Your task to perform on an android device: turn on javascript in the chrome app Image 0: 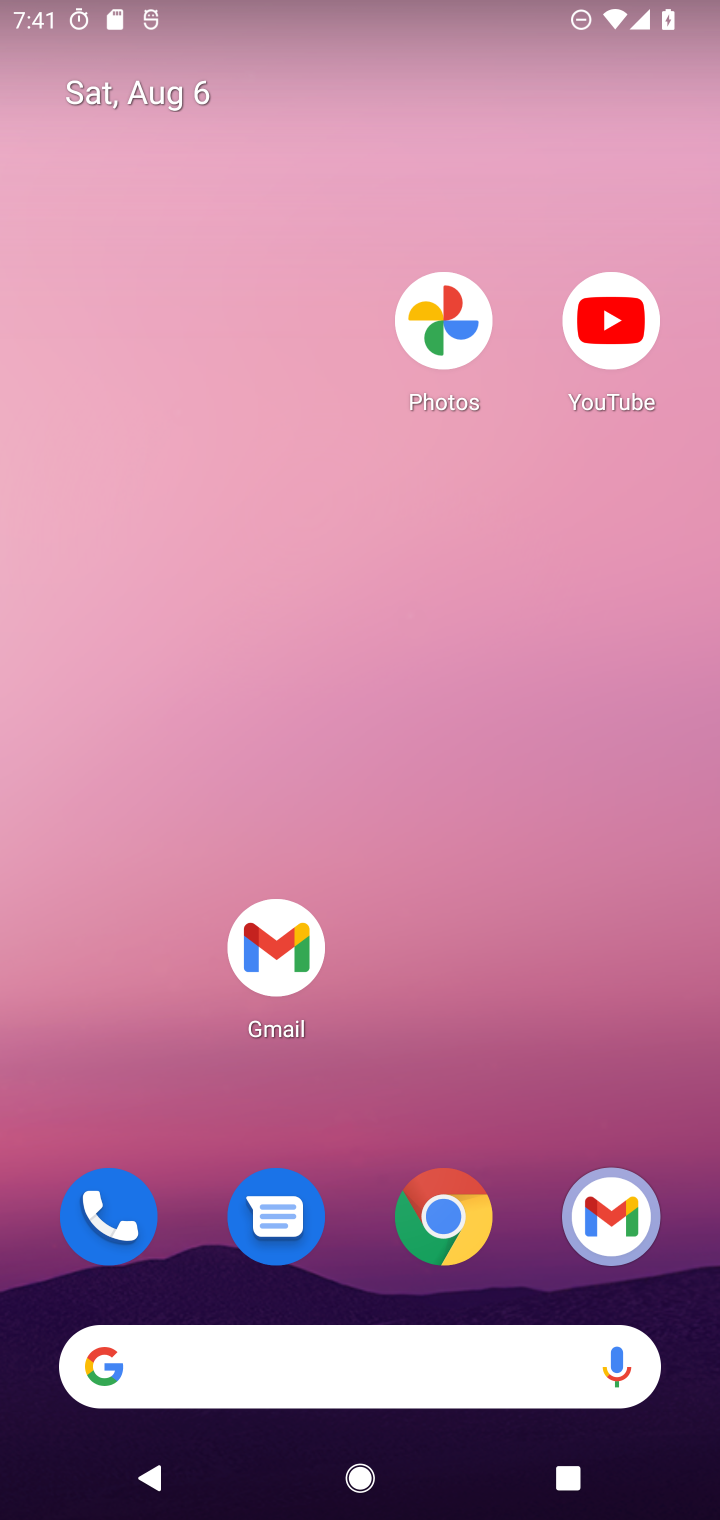
Step 0: drag from (454, 584) to (498, 38)
Your task to perform on an android device: turn on javascript in the chrome app Image 1: 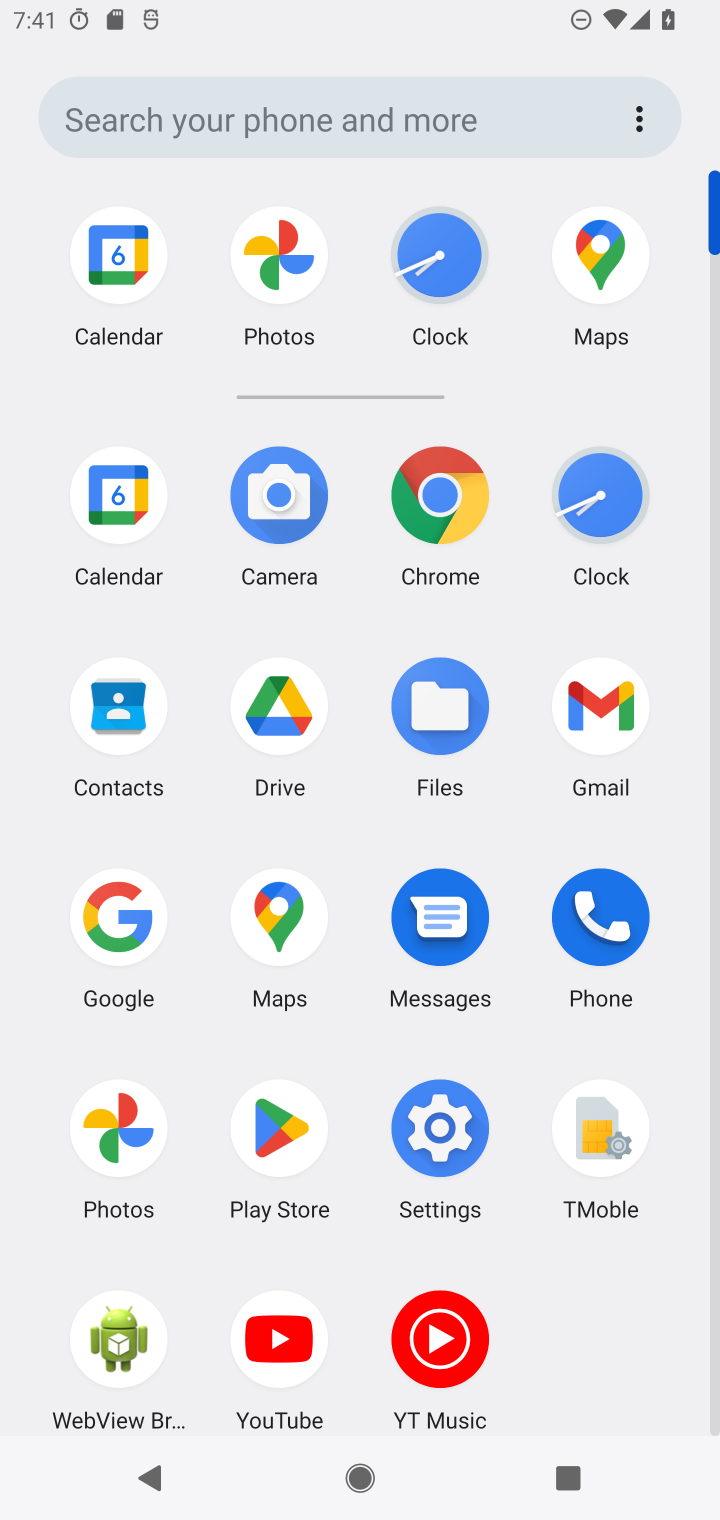
Step 1: click (443, 495)
Your task to perform on an android device: turn on javascript in the chrome app Image 2: 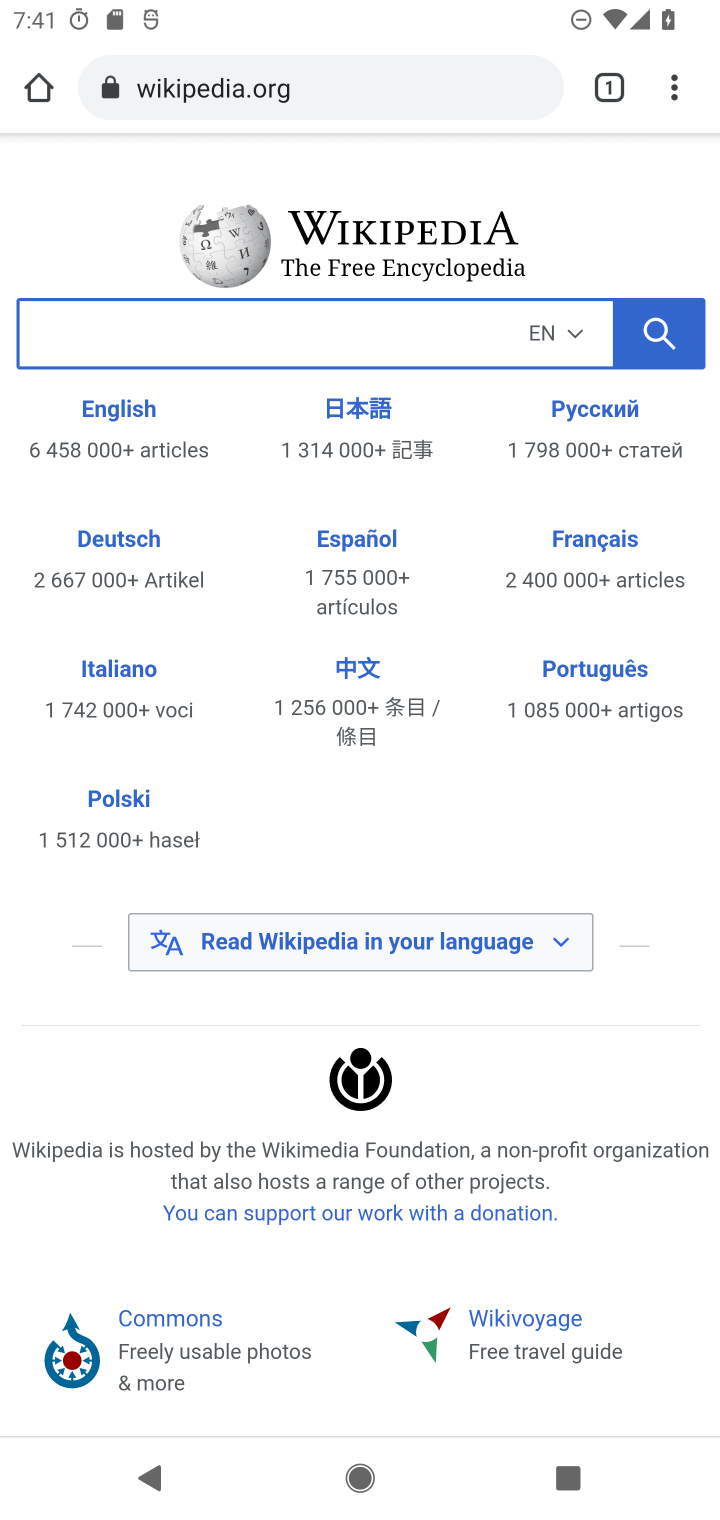
Step 2: drag from (689, 95) to (427, 1204)
Your task to perform on an android device: turn on javascript in the chrome app Image 3: 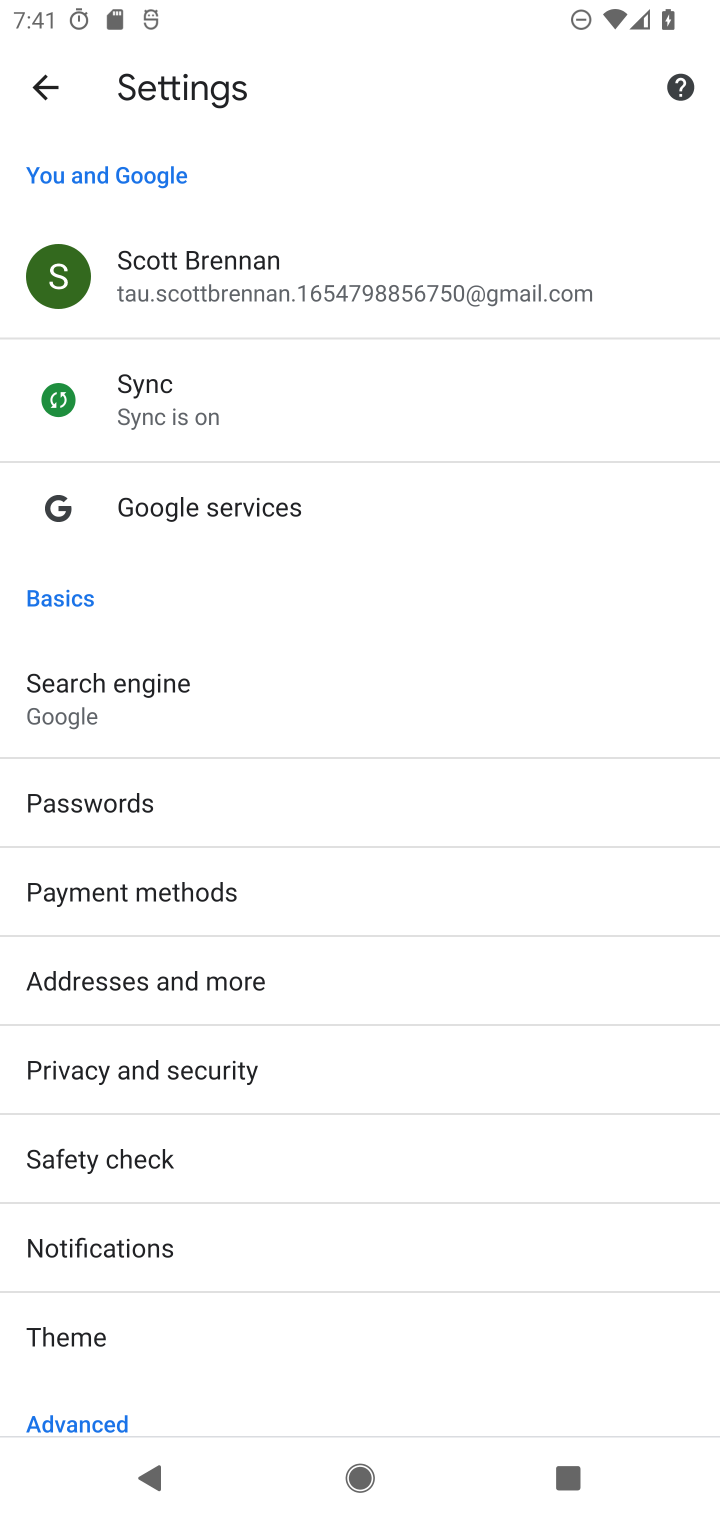
Step 3: drag from (272, 1216) to (363, 367)
Your task to perform on an android device: turn on javascript in the chrome app Image 4: 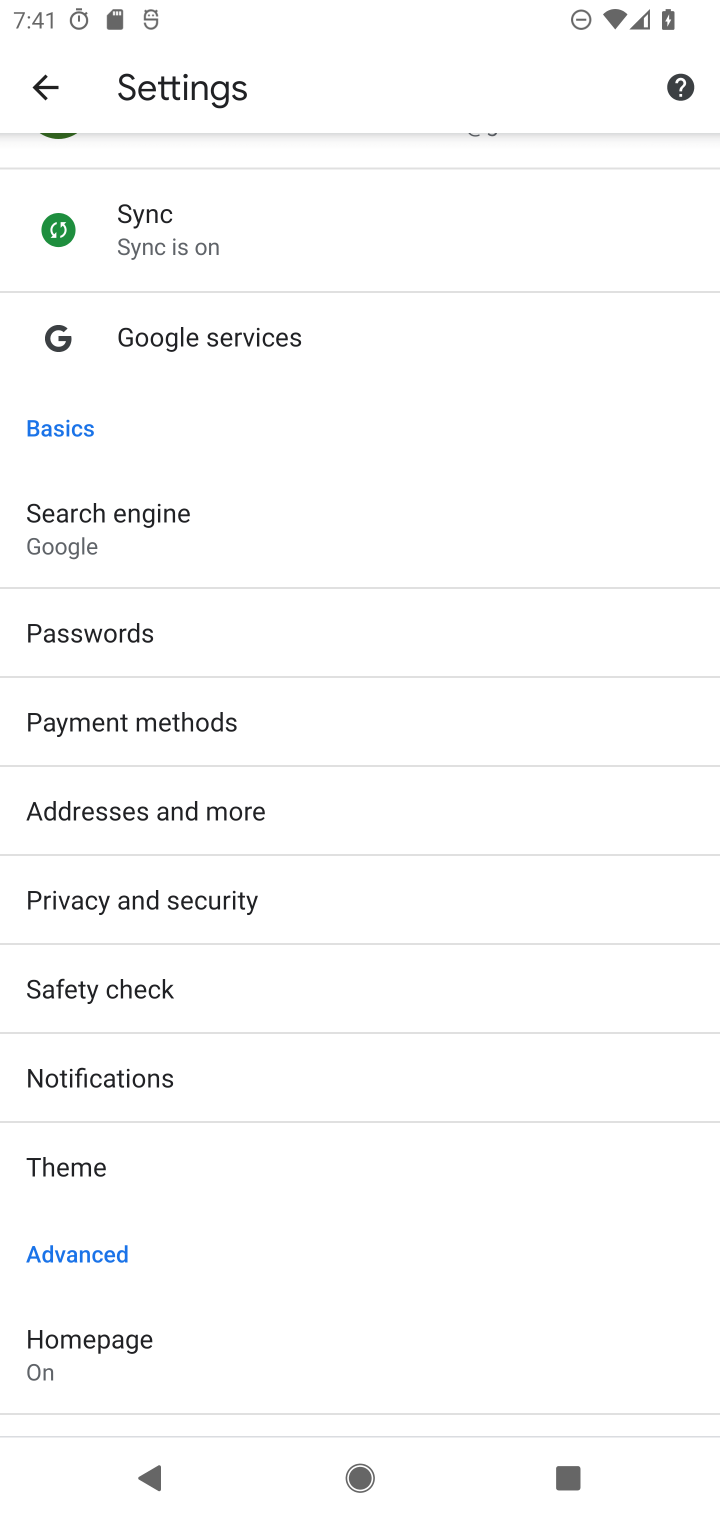
Step 4: drag from (364, 1250) to (524, 461)
Your task to perform on an android device: turn on javascript in the chrome app Image 5: 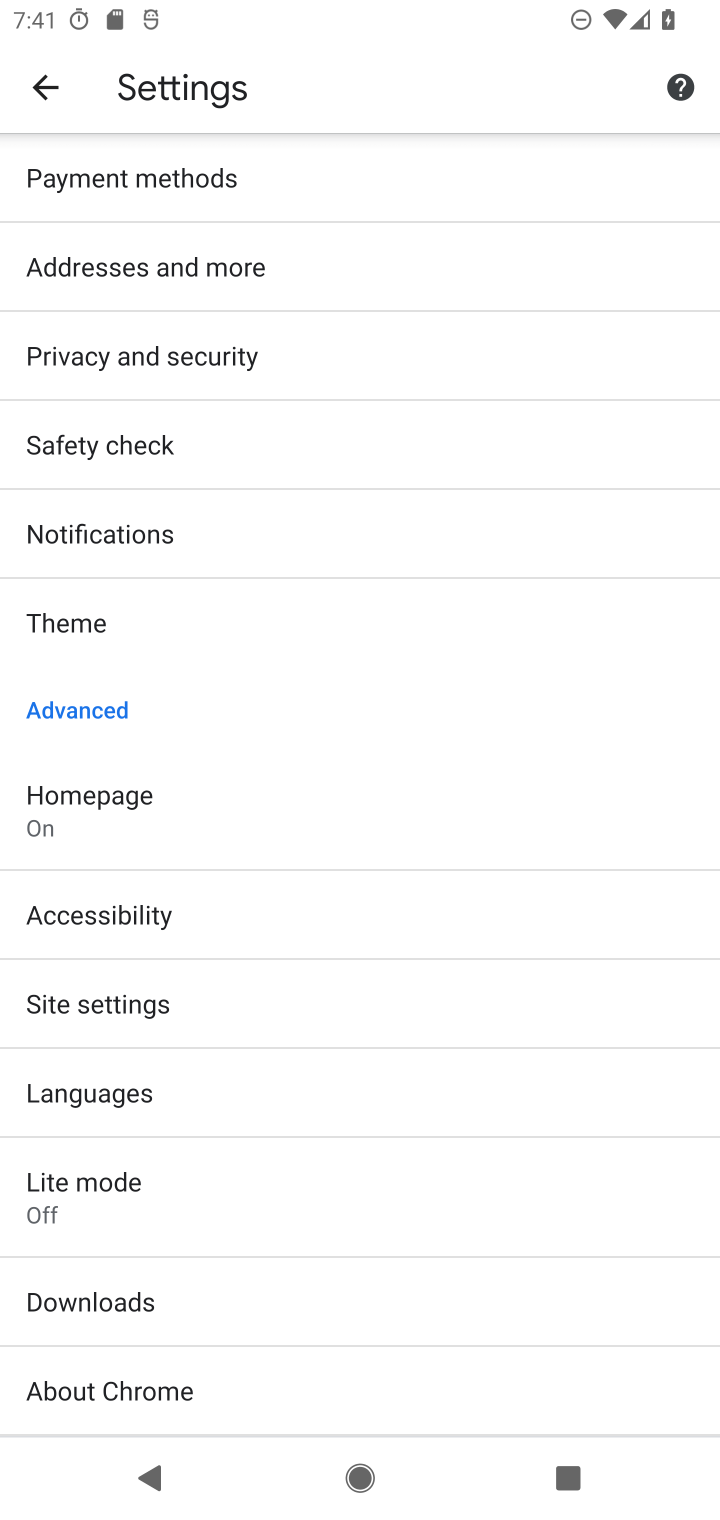
Step 5: click (164, 999)
Your task to perform on an android device: turn on javascript in the chrome app Image 6: 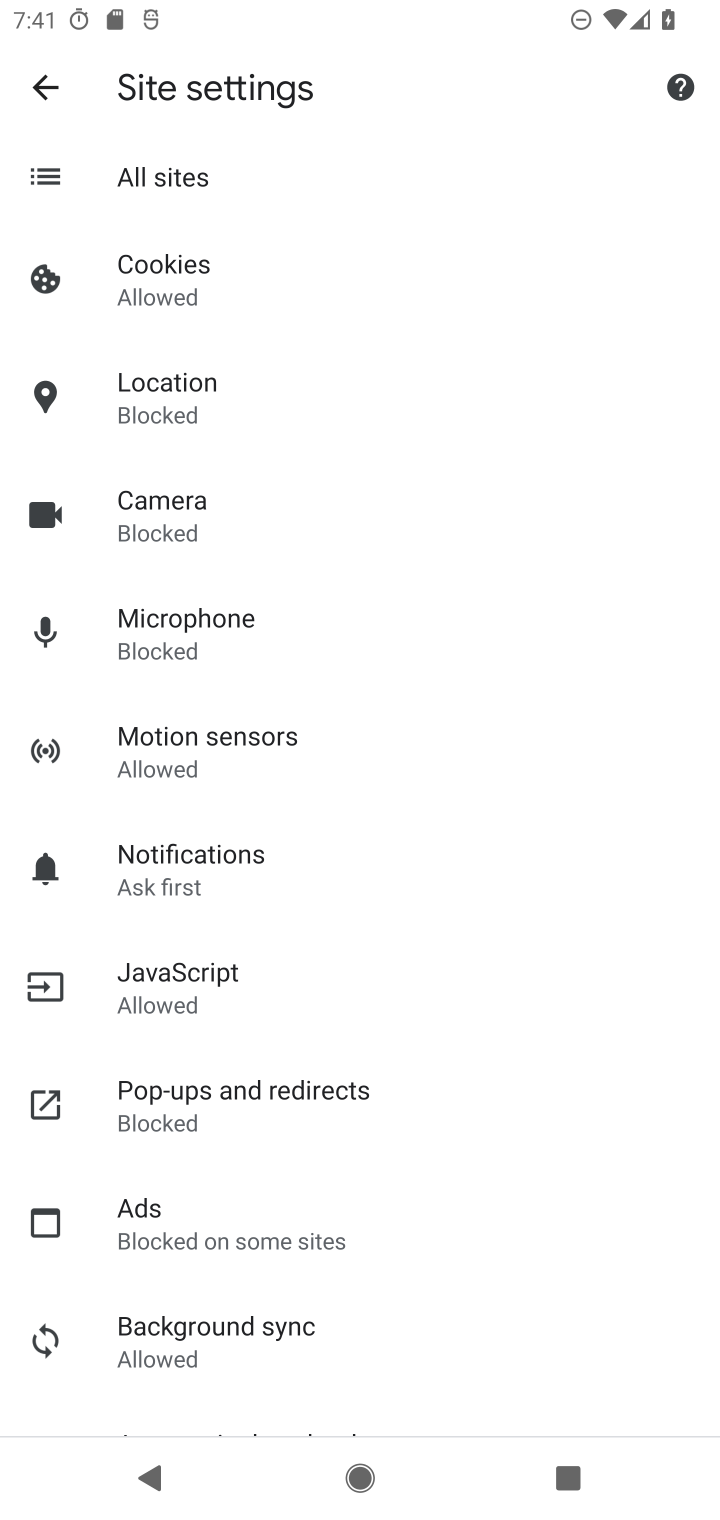
Step 6: click (159, 1020)
Your task to perform on an android device: turn on javascript in the chrome app Image 7: 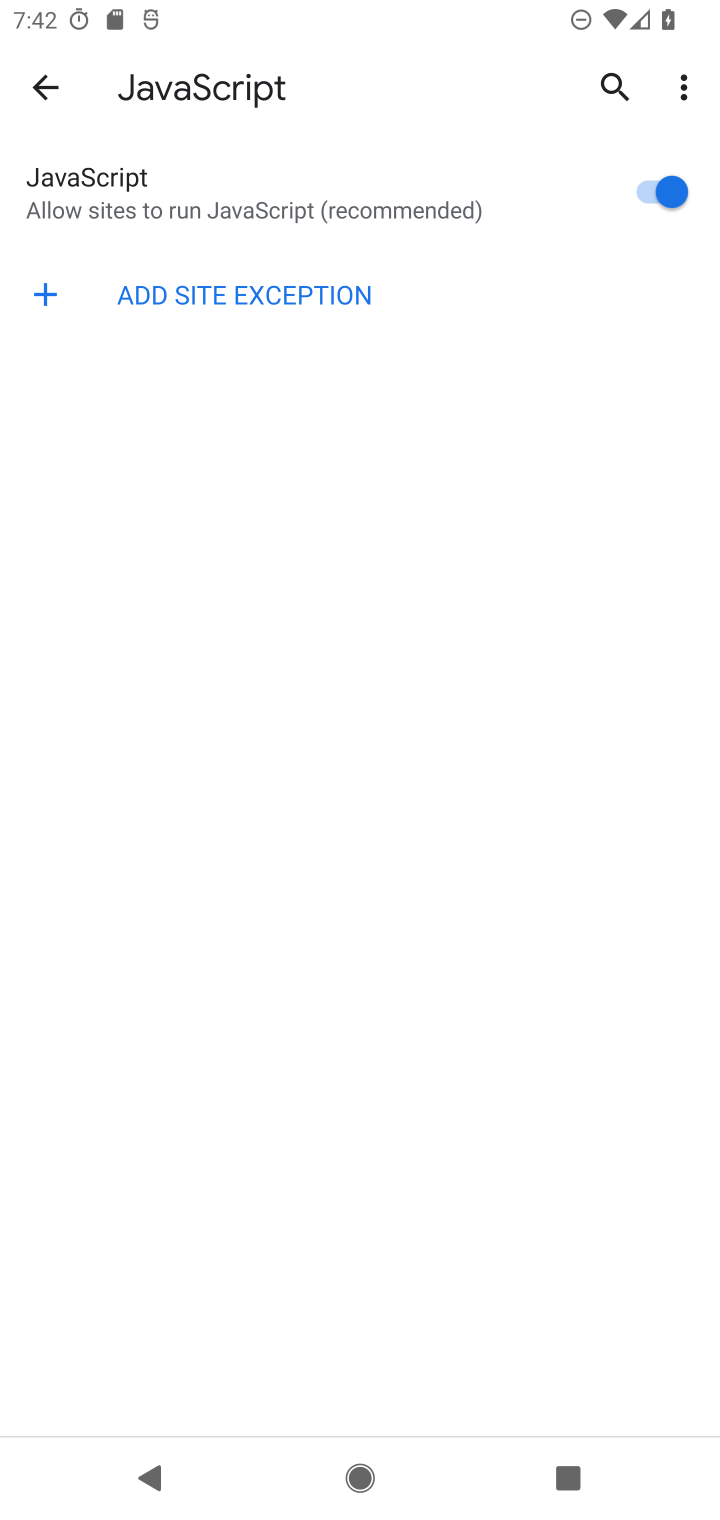
Step 7: task complete